Your task to perform on an android device: Open maps Image 0: 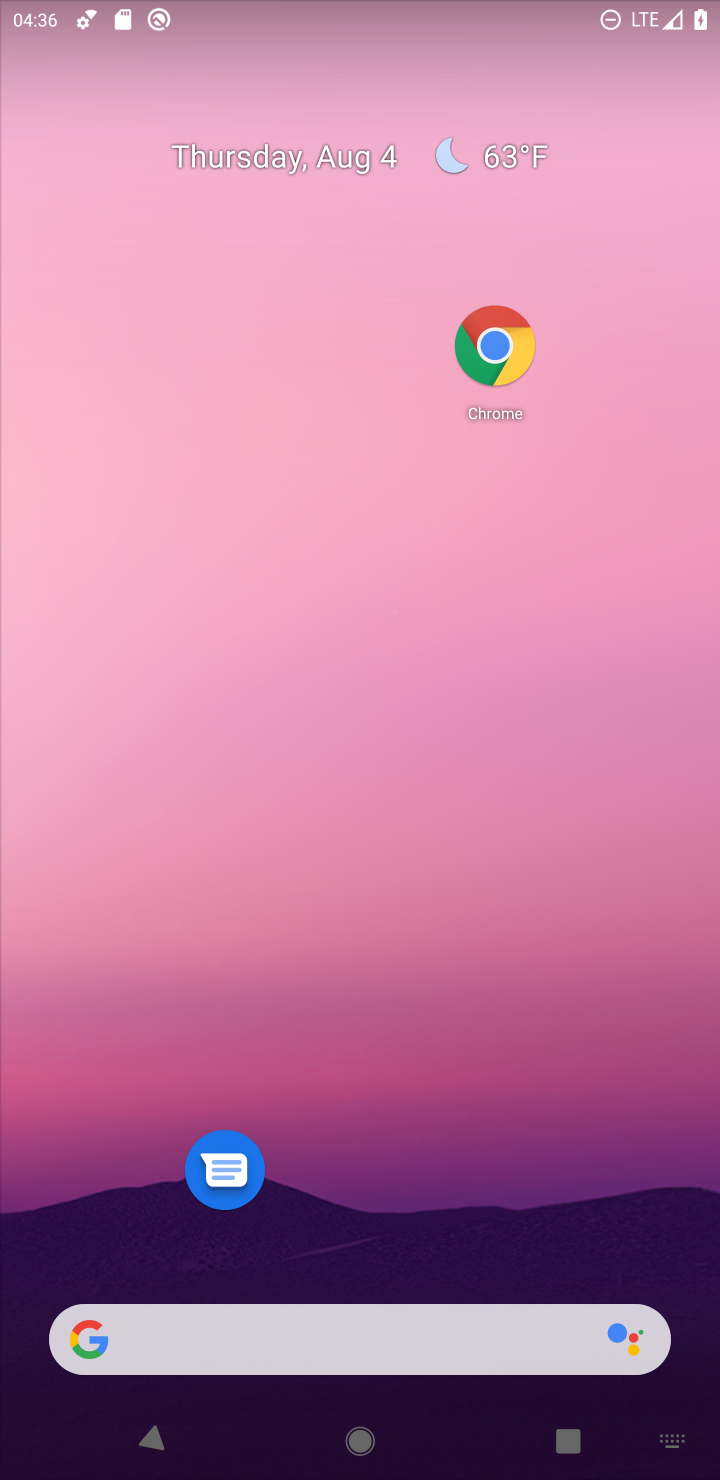
Step 0: drag from (686, 1217) to (673, 75)
Your task to perform on an android device: Open maps Image 1: 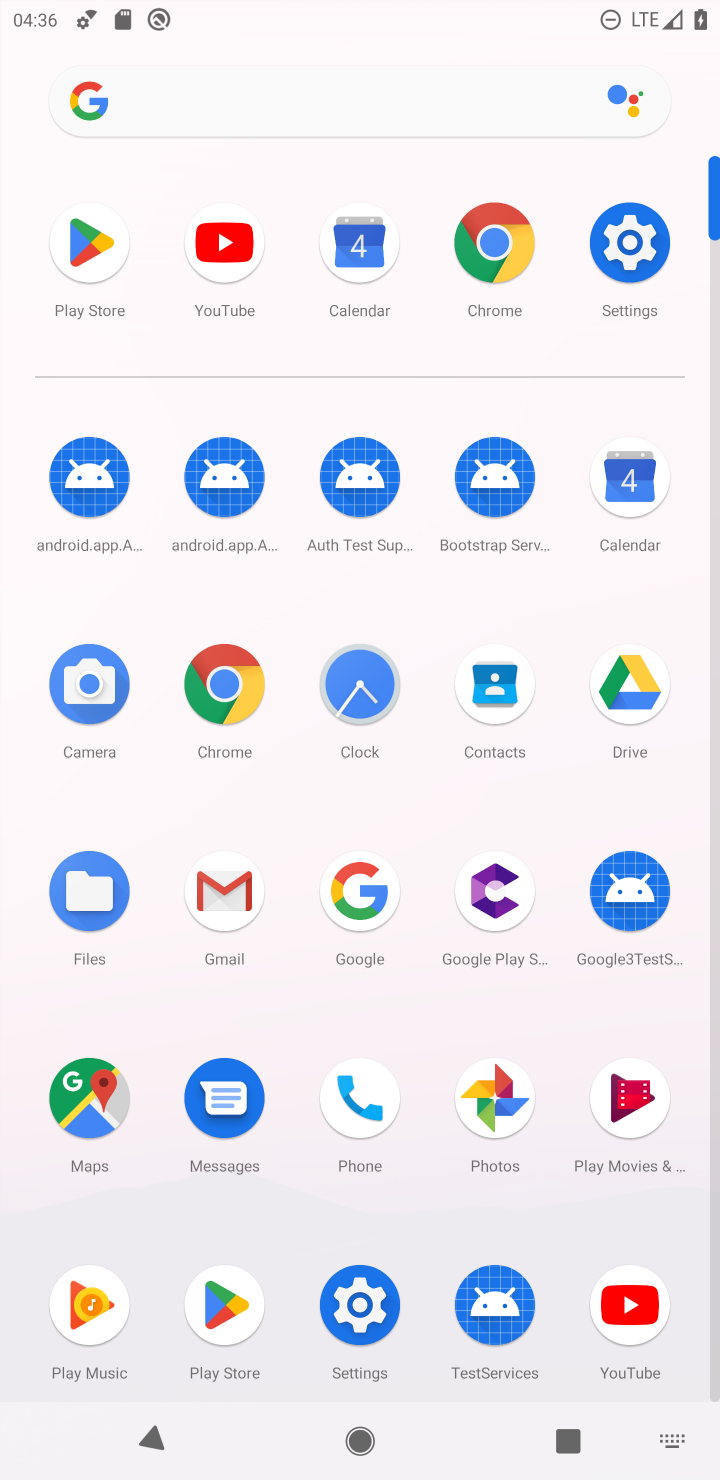
Step 1: click (96, 1089)
Your task to perform on an android device: Open maps Image 2: 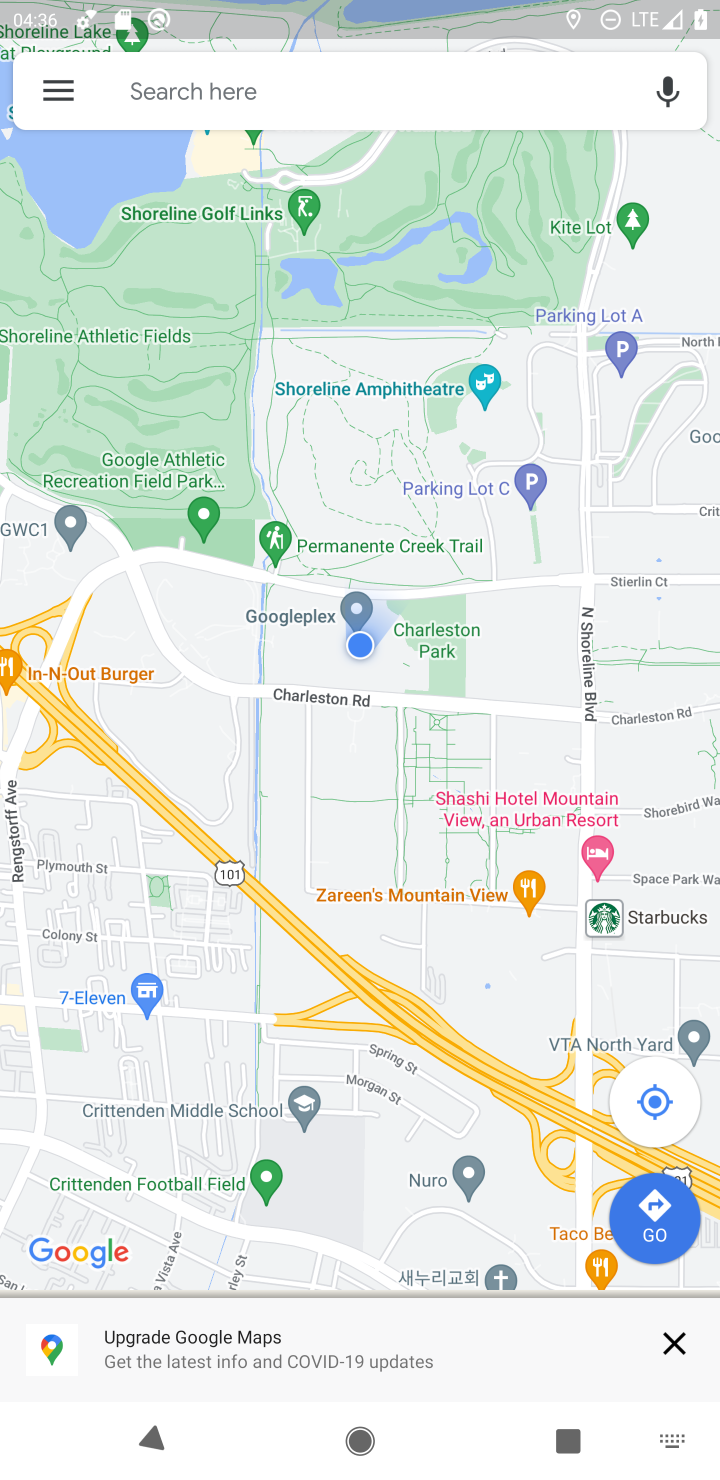
Step 2: task complete